Your task to perform on an android device: read, delete, or share a saved page in the chrome app Image 0: 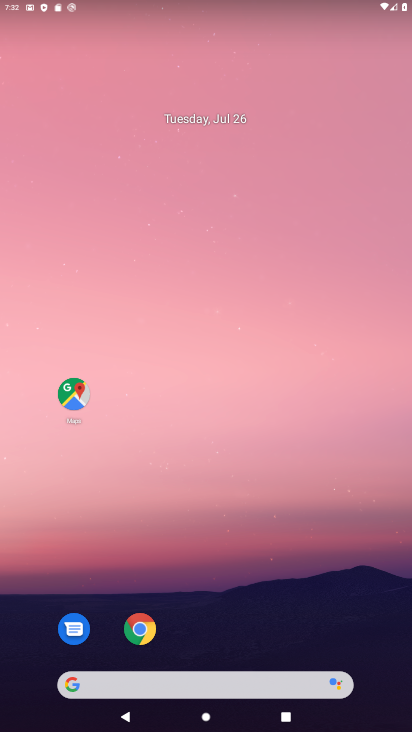
Step 0: press home button
Your task to perform on an android device: read, delete, or share a saved page in the chrome app Image 1: 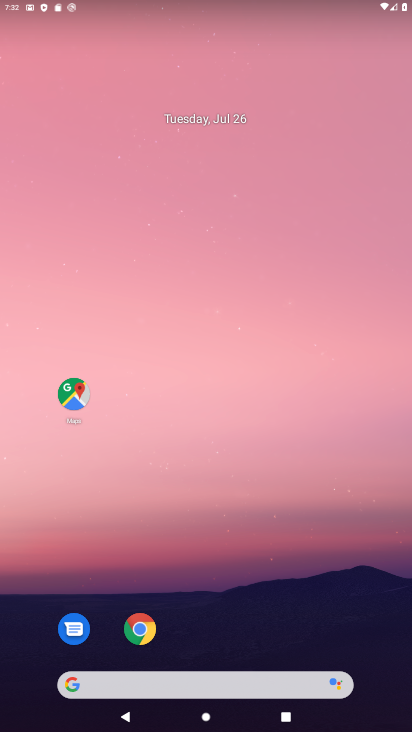
Step 1: click (137, 622)
Your task to perform on an android device: read, delete, or share a saved page in the chrome app Image 2: 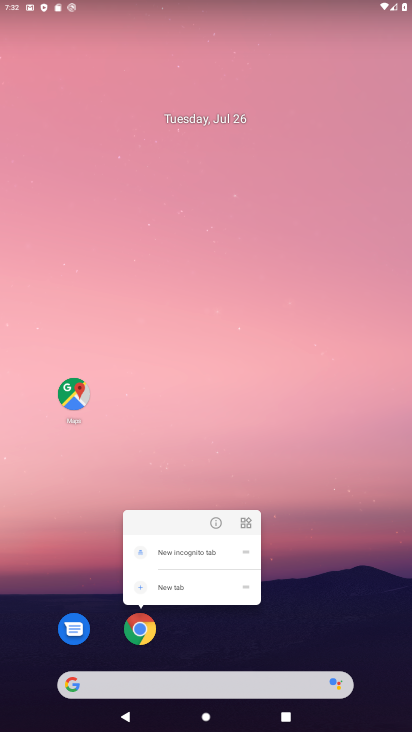
Step 2: click (136, 622)
Your task to perform on an android device: read, delete, or share a saved page in the chrome app Image 3: 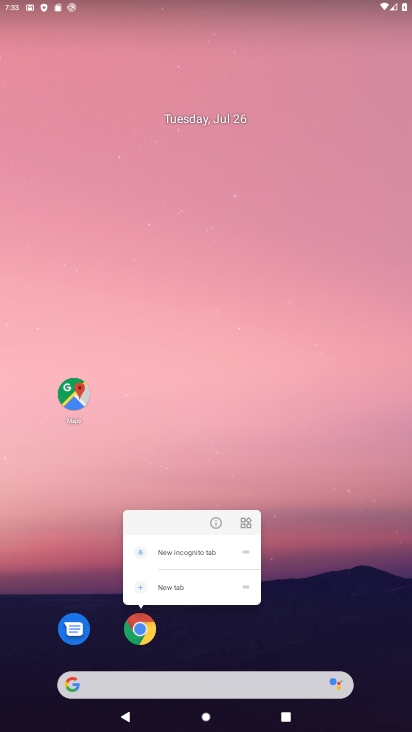
Step 3: click (139, 629)
Your task to perform on an android device: read, delete, or share a saved page in the chrome app Image 4: 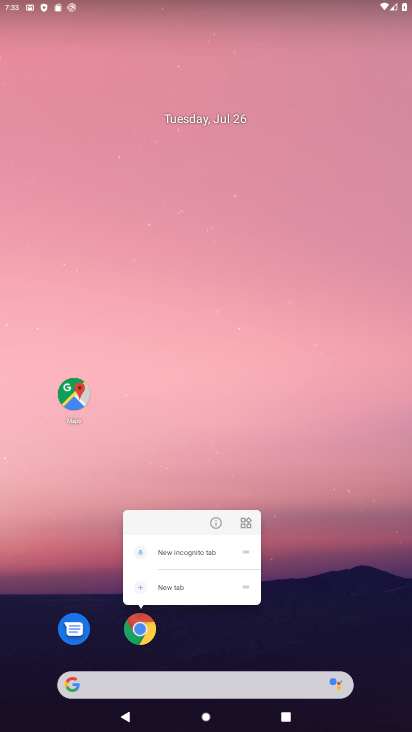
Step 4: click (139, 629)
Your task to perform on an android device: read, delete, or share a saved page in the chrome app Image 5: 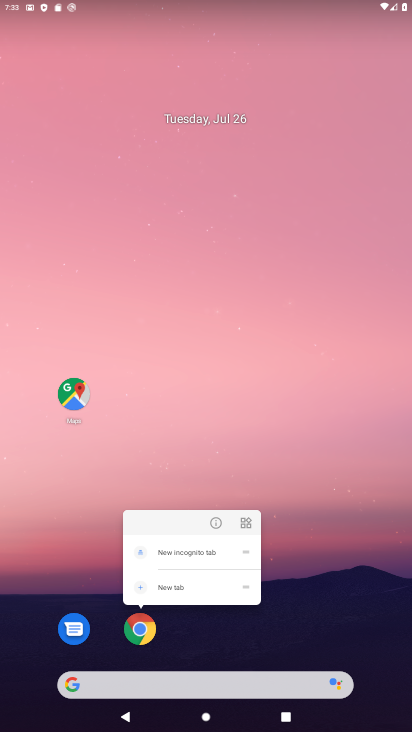
Step 5: drag from (292, 626) to (290, 1)
Your task to perform on an android device: read, delete, or share a saved page in the chrome app Image 6: 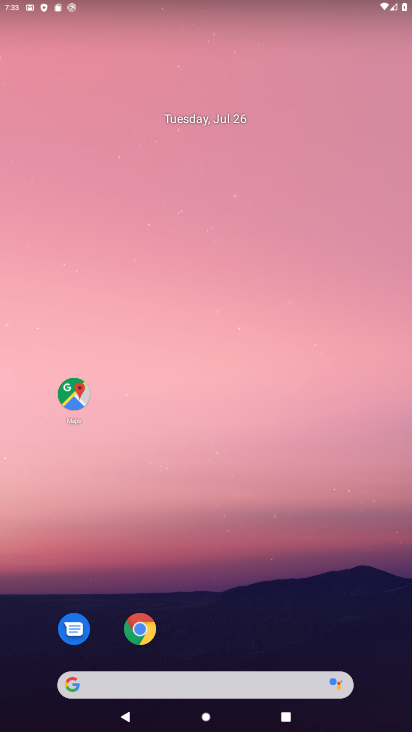
Step 6: drag from (257, 640) to (244, 16)
Your task to perform on an android device: read, delete, or share a saved page in the chrome app Image 7: 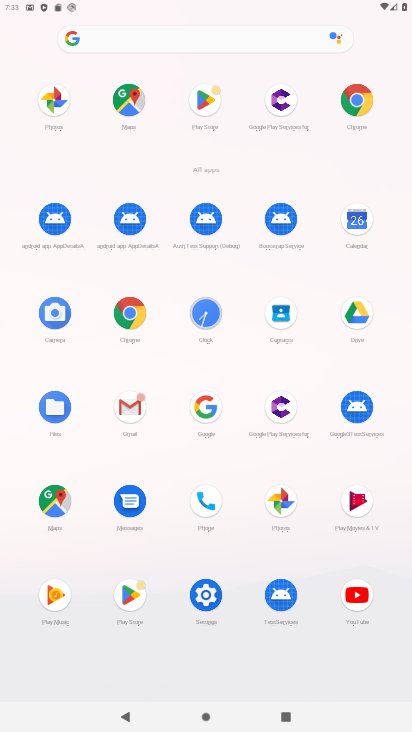
Step 7: click (129, 305)
Your task to perform on an android device: read, delete, or share a saved page in the chrome app Image 8: 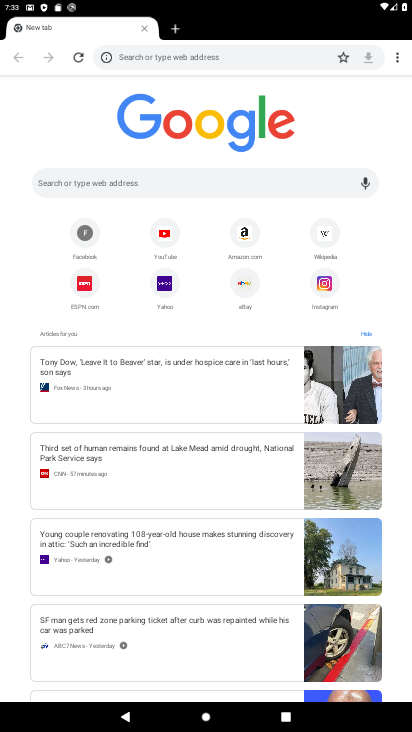
Step 8: click (397, 59)
Your task to perform on an android device: read, delete, or share a saved page in the chrome app Image 9: 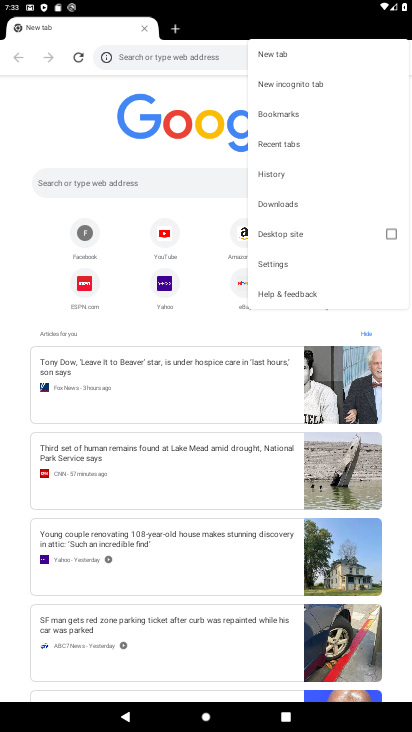
Step 9: click (308, 201)
Your task to perform on an android device: read, delete, or share a saved page in the chrome app Image 10: 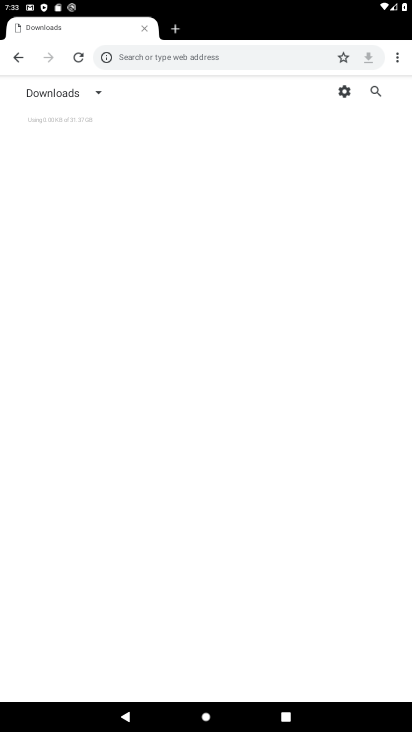
Step 10: task complete